Your task to perform on an android device: turn on data saver in the chrome app Image 0: 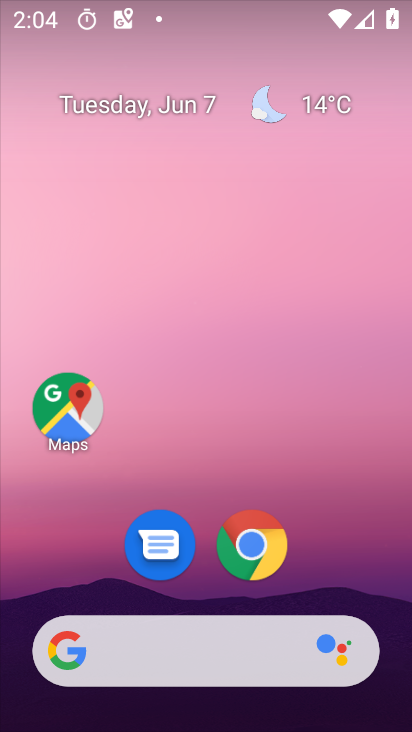
Step 0: click (267, 528)
Your task to perform on an android device: turn on data saver in the chrome app Image 1: 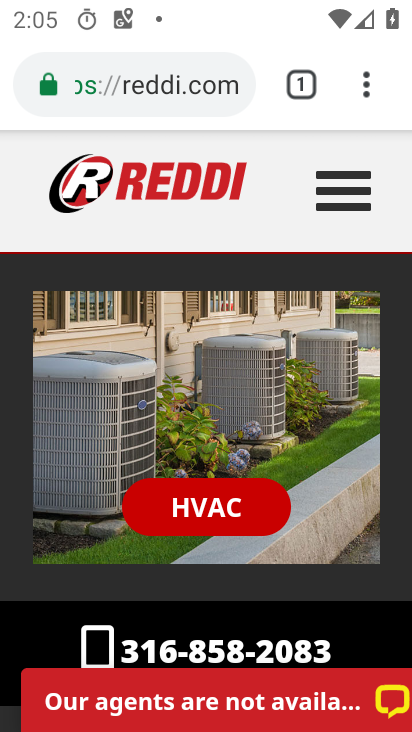
Step 1: click (367, 75)
Your task to perform on an android device: turn on data saver in the chrome app Image 2: 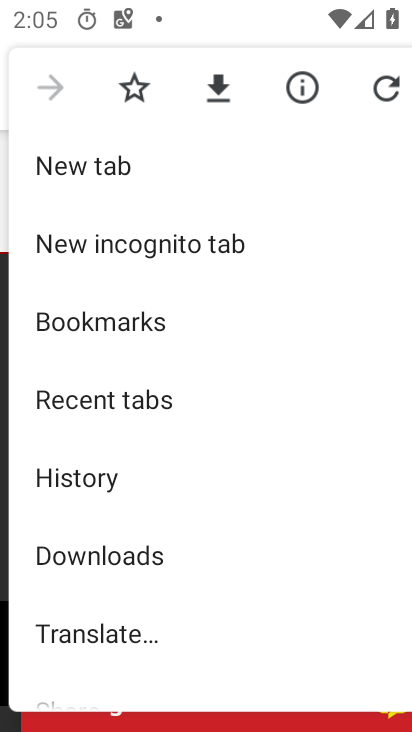
Step 2: click (246, 53)
Your task to perform on an android device: turn on data saver in the chrome app Image 3: 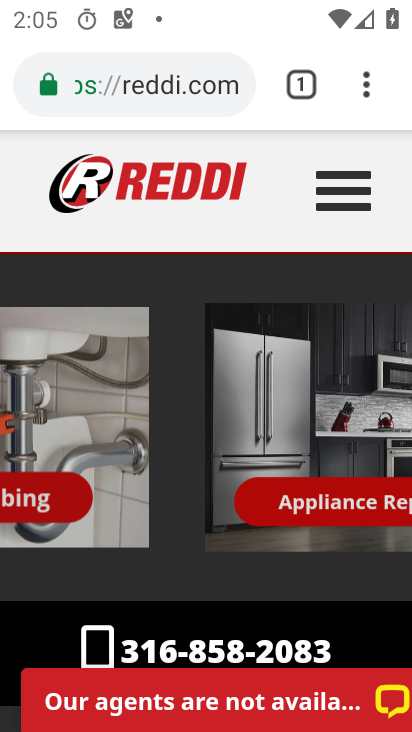
Step 3: drag from (252, 539) to (318, 129)
Your task to perform on an android device: turn on data saver in the chrome app Image 4: 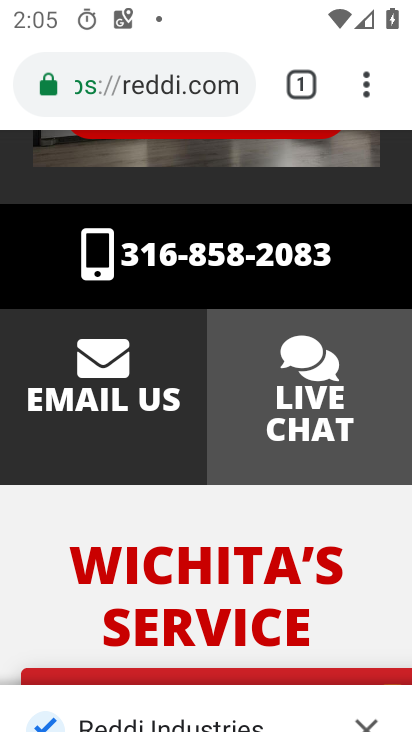
Step 4: click (364, 79)
Your task to perform on an android device: turn on data saver in the chrome app Image 5: 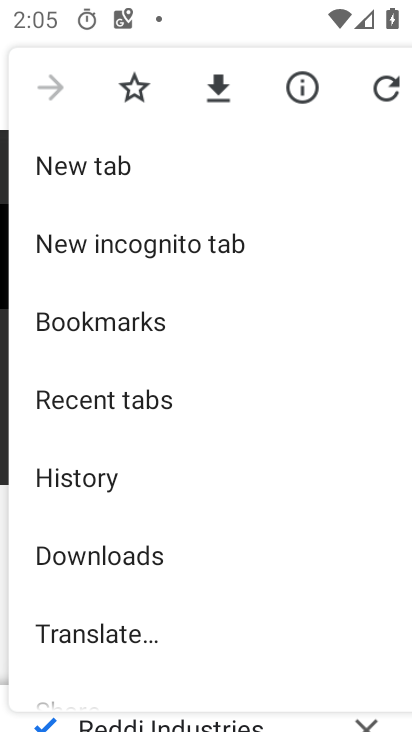
Step 5: drag from (232, 548) to (140, 29)
Your task to perform on an android device: turn on data saver in the chrome app Image 6: 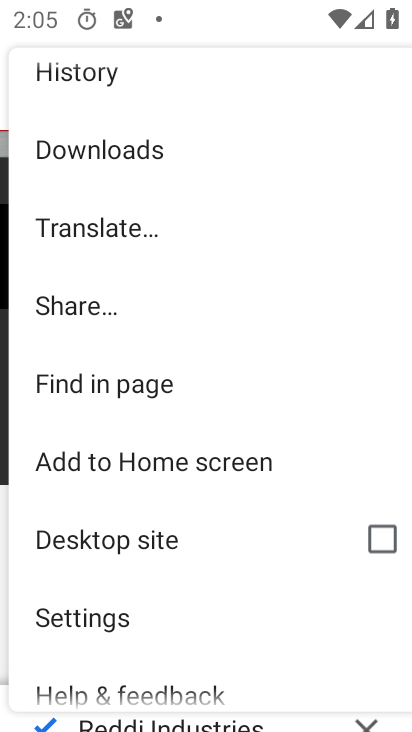
Step 6: click (145, 593)
Your task to perform on an android device: turn on data saver in the chrome app Image 7: 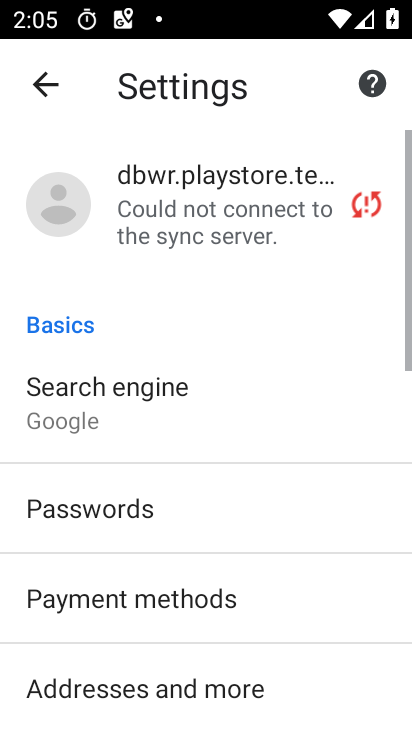
Step 7: drag from (228, 653) to (309, 0)
Your task to perform on an android device: turn on data saver in the chrome app Image 8: 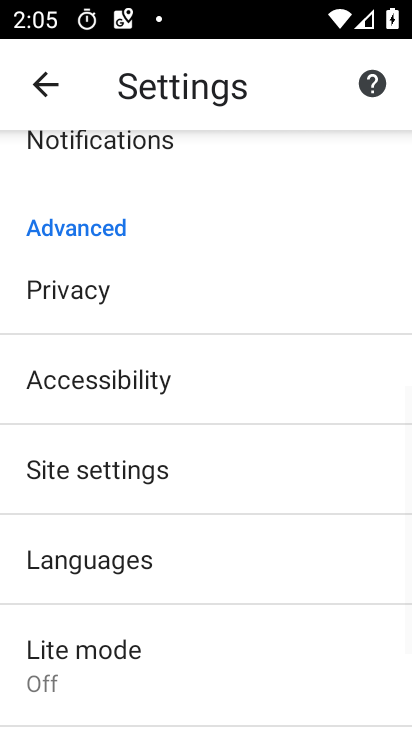
Step 8: click (174, 661)
Your task to perform on an android device: turn on data saver in the chrome app Image 9: 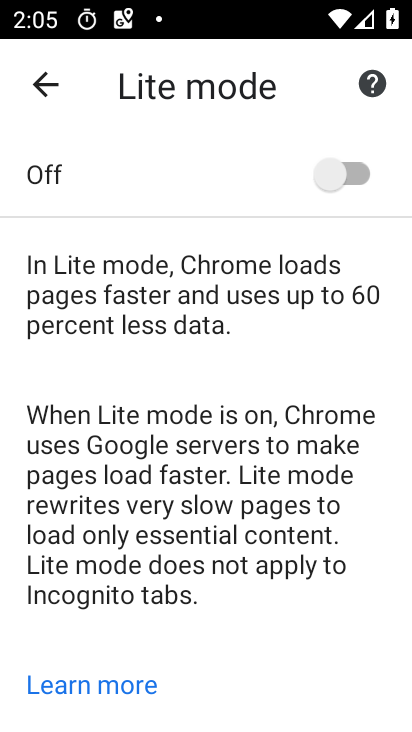
Step 9: click (354, 189)
Your task to perform on an android device: turn on data saver in the chrome app Image 10: 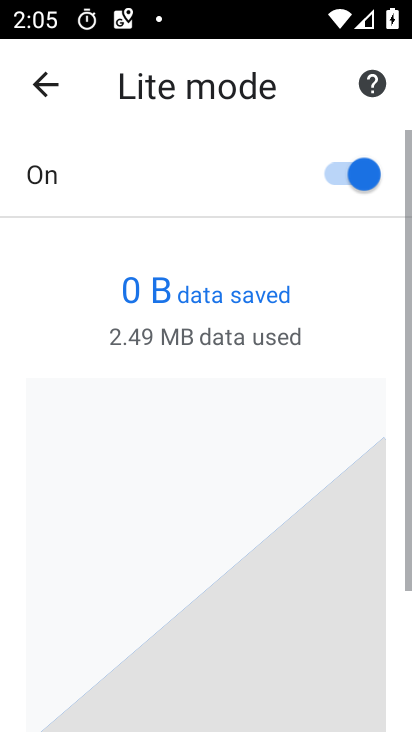
Step 10: task complete